Your task to perform on an android device: open app "Nova Launcher" Image 0: 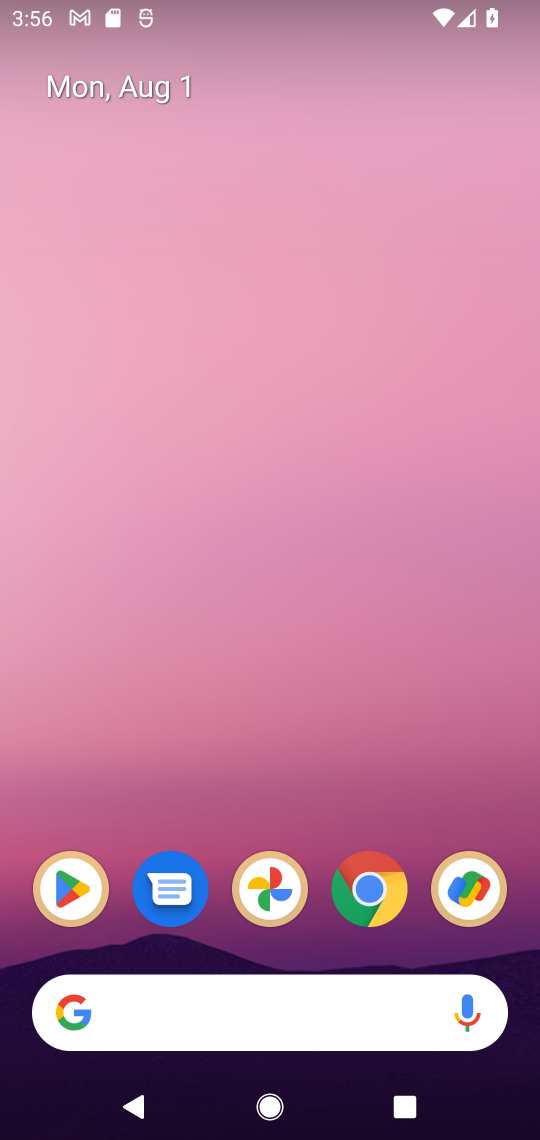
Step 0: click (84, 903)
Your task to perform on an android device: open app "Nova Launcher" Image 1: 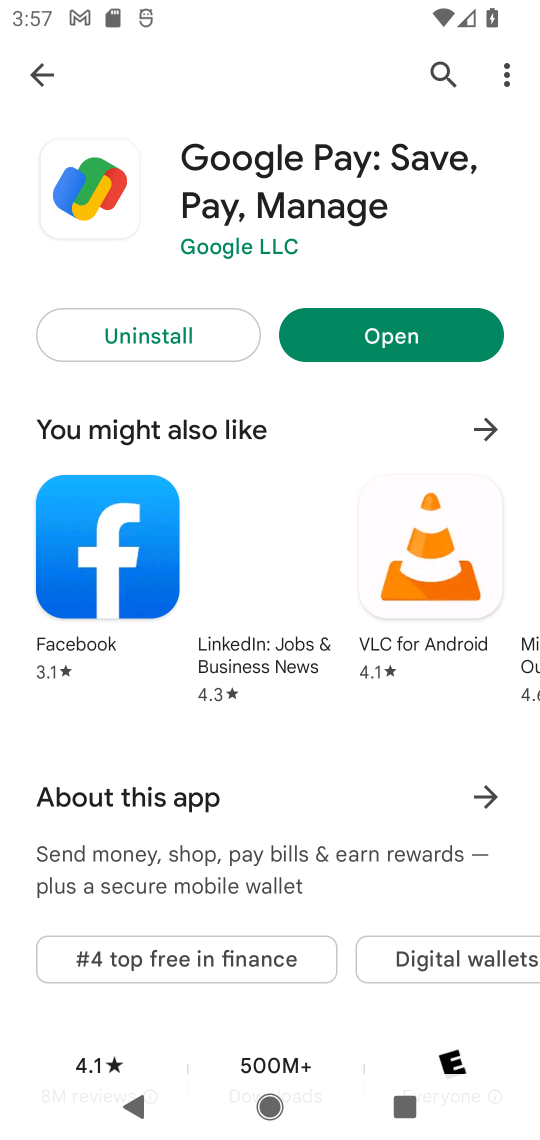
Step 1: click (461, 84)
Your task to perform on an android device: open app "Nova Launcher" Image 2: 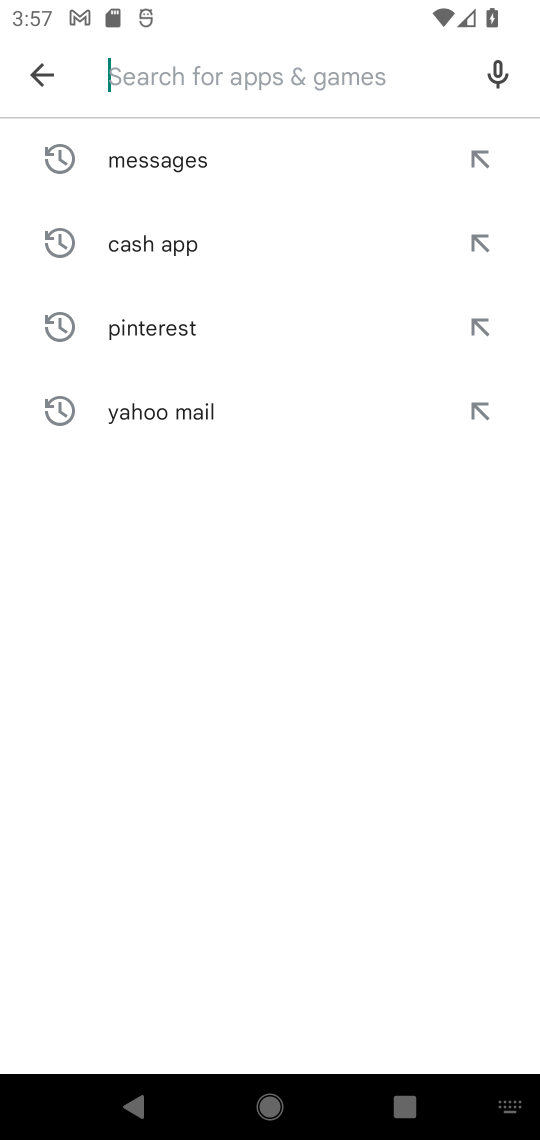
Step 2: type "Nova Launcher"
Your task to perform on an android device: open app "Nova Launcher" Image 3: 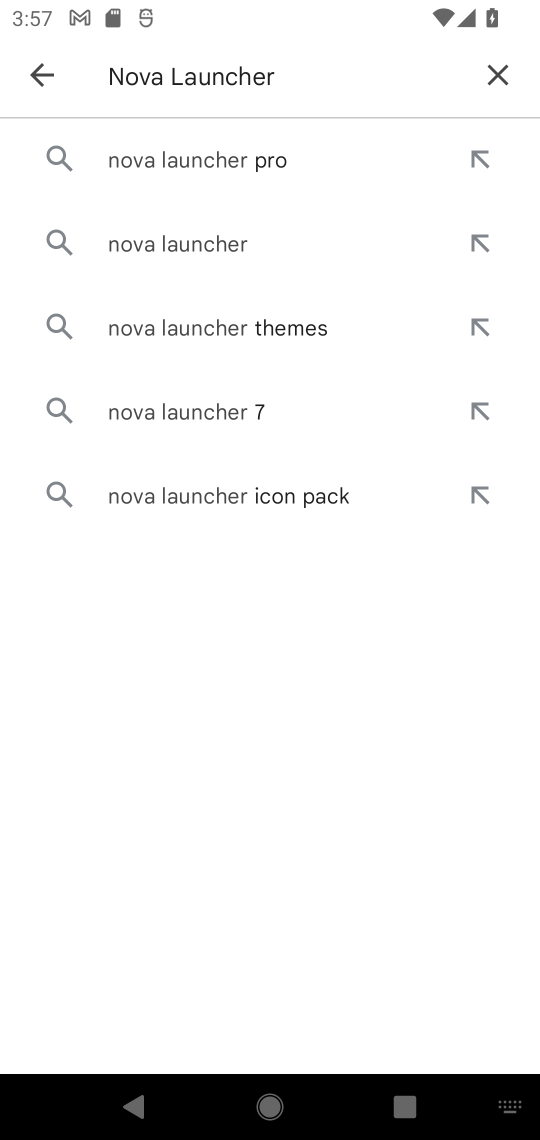
Step 3: click (198, 273)
Your task to perform on an android device: open app "Nova Launcher" Image 4: 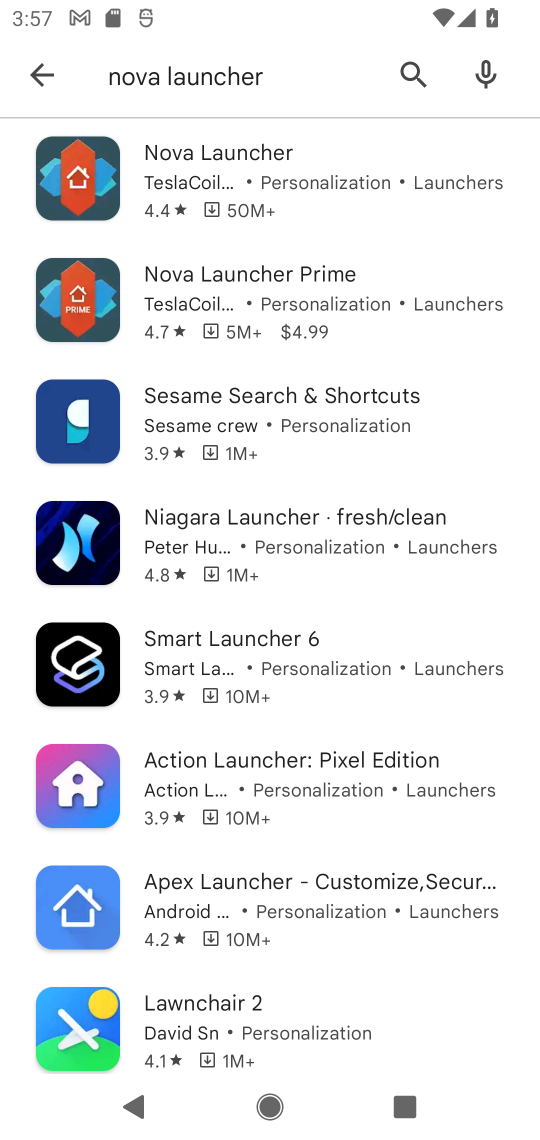
Step 4: click (213, 152)
Your task to perform on an android device: open app "Nova Launcher" Image 5: 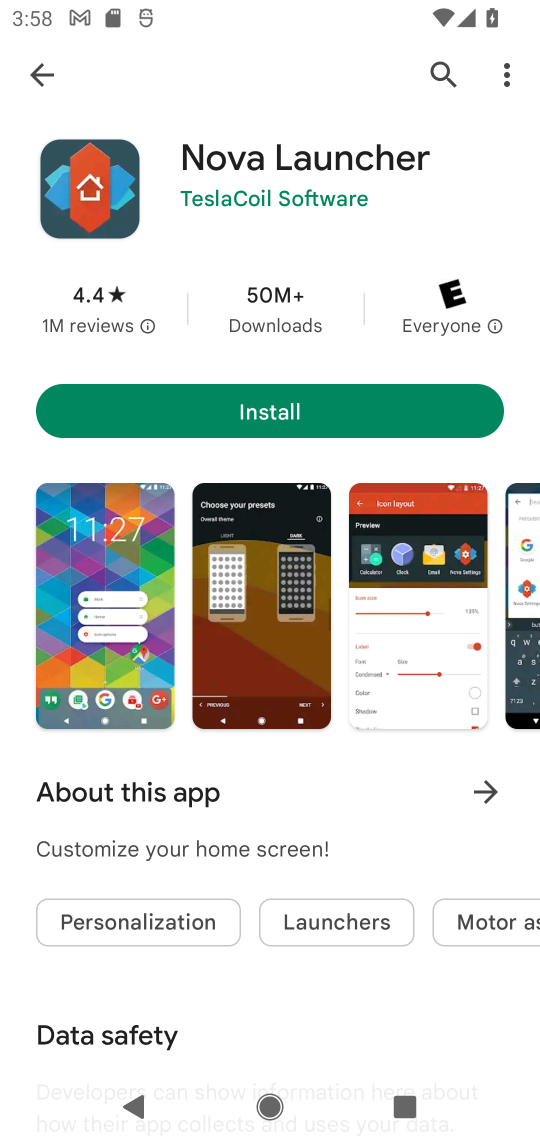
Step 5: task complete